Your task to perform on an android device: Open internet settings Image 0: 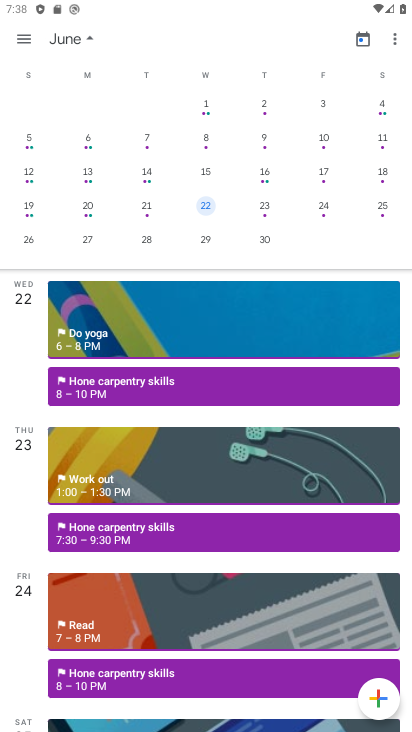
Step 0: press home button
Your task to perform on an android device: Open internet settings Image 1: 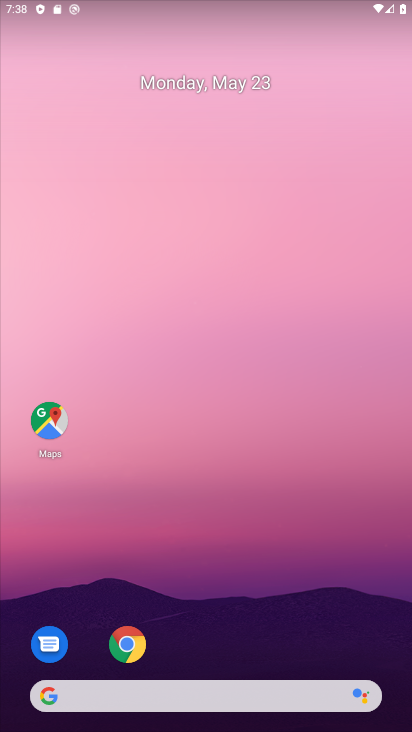
Step 1: drag from (20, 637) to (206, 270)
Your task to perform on an android device: Open internet settings Image 2: 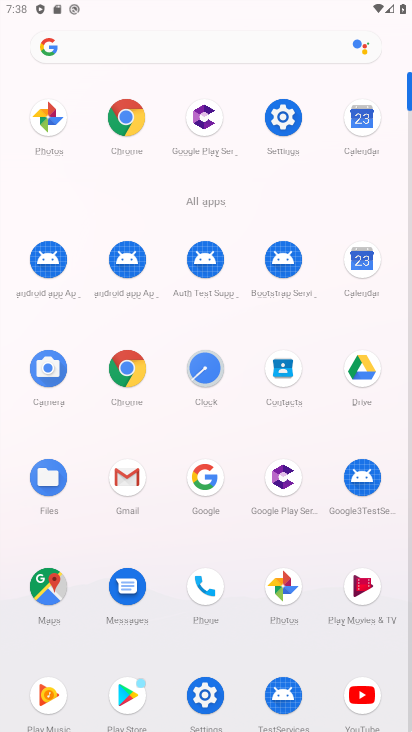
Step 2: click (289, 112)
Your task to perform on an android device: Open internet settings Image 3: 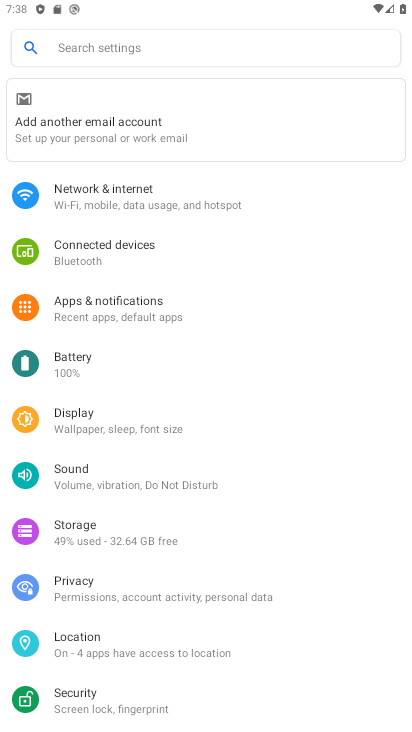
Step 3: click (171, 196)
Your task to perform on an android device: Open internet settings Image 4: 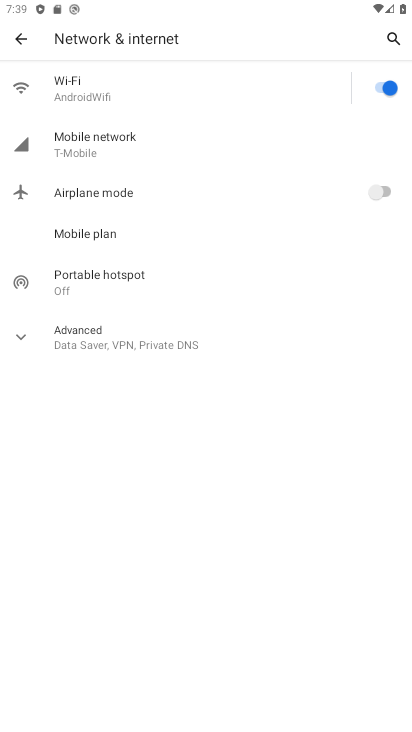
Step 4: click (92, 140)
Your task to perform on an android device: Open internet settings Image 5: 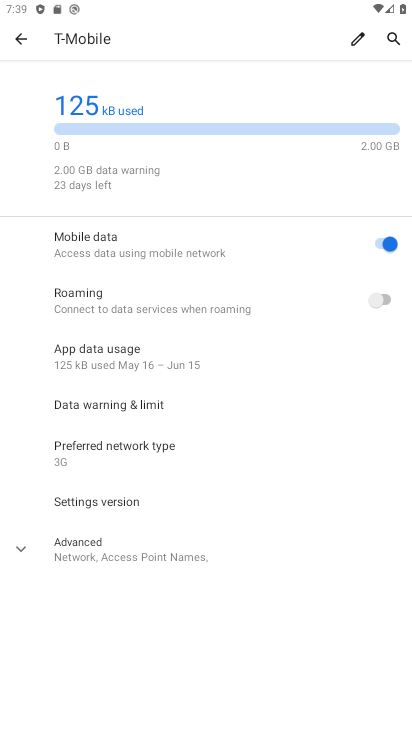
Step 5: task complete